Your task to perform on an android device: Search for "logitech g502" on newegg.com, select the first entry, and add it to the cart. Image 0: 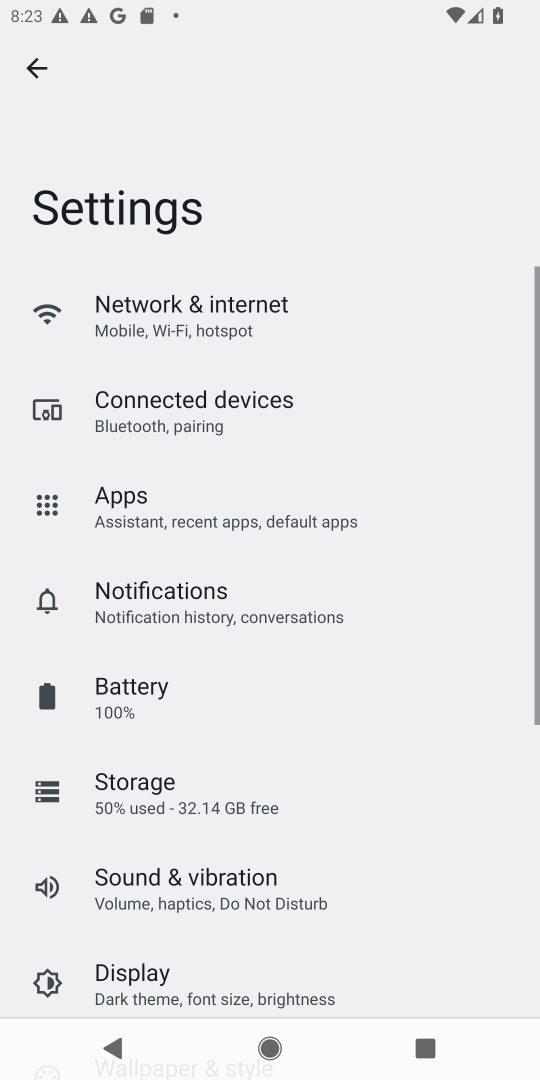
Step 0: press home button
Your task to perform on an android device: Search for "logitech g502" on newegg.com, select the first entry, and add it to the cart. Image 1: 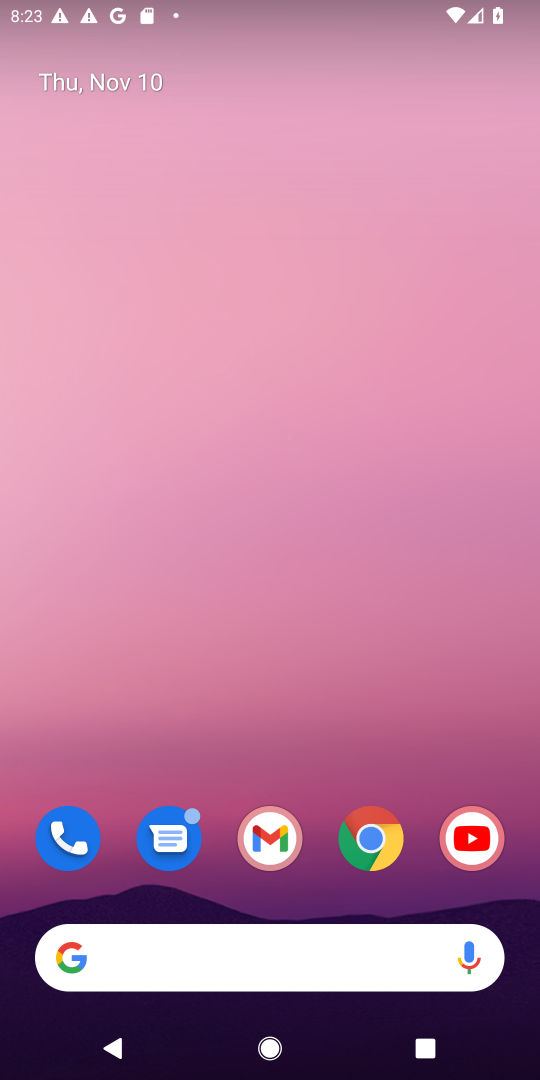
Step 1: drag from (325, 918) to (170, 15)
Your task to perform on an android device: Search for "logitech g502" on newegg.com, select the first entry, and add it to the cart. Image 2: 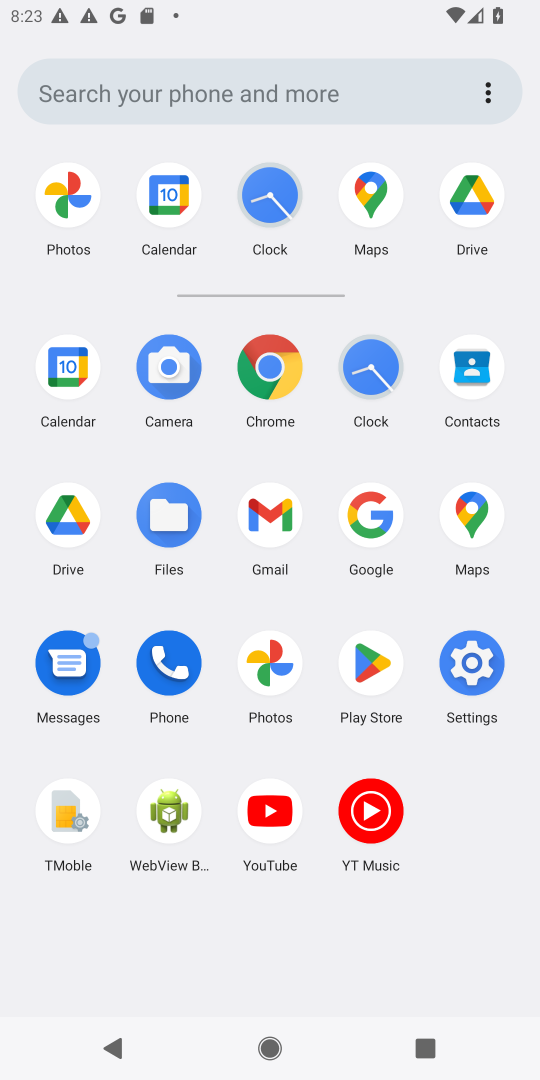
Step 2: click (269, 382)
Your task to perform on an android device: Search for "logitech g502" on newegg.com, select the first entry, and add it to the cart. Image 3: 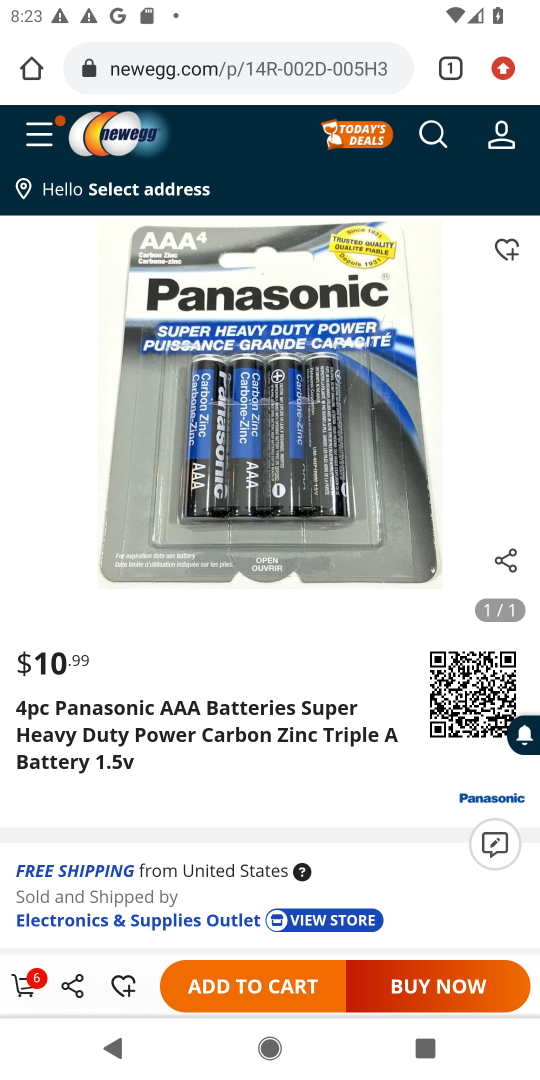
Step 3: click (322, 58)
Your task to perform on an android device: Search for "logitech g502" on newegg.com, select the first entry, and add it to the cart. Image 4: 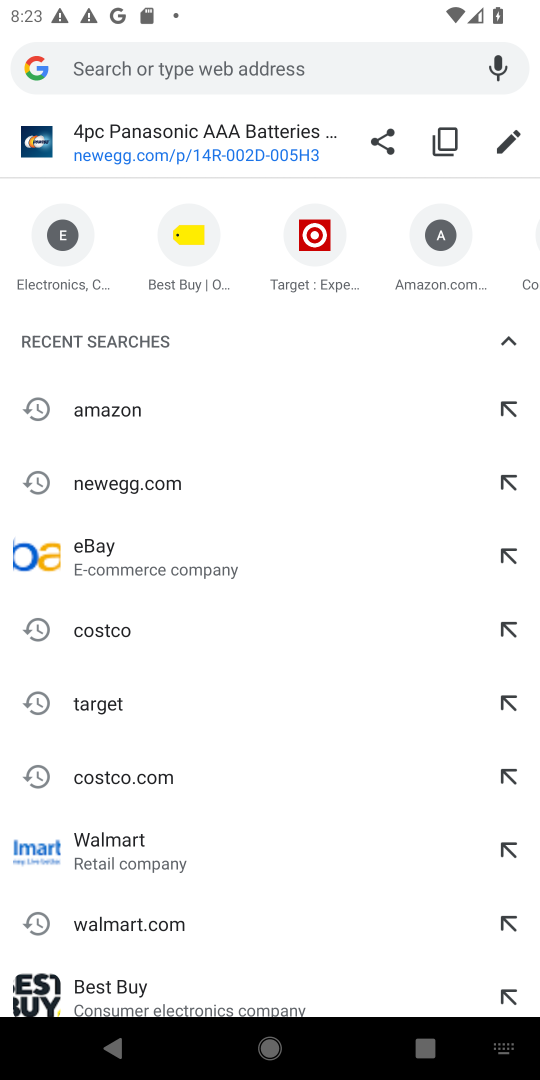
Step 4: type "newegg.com"
Your task to perform on an android device: Search for "logitech g502" on newegg.com, select the first entry, and add it to the cart. Image 5: 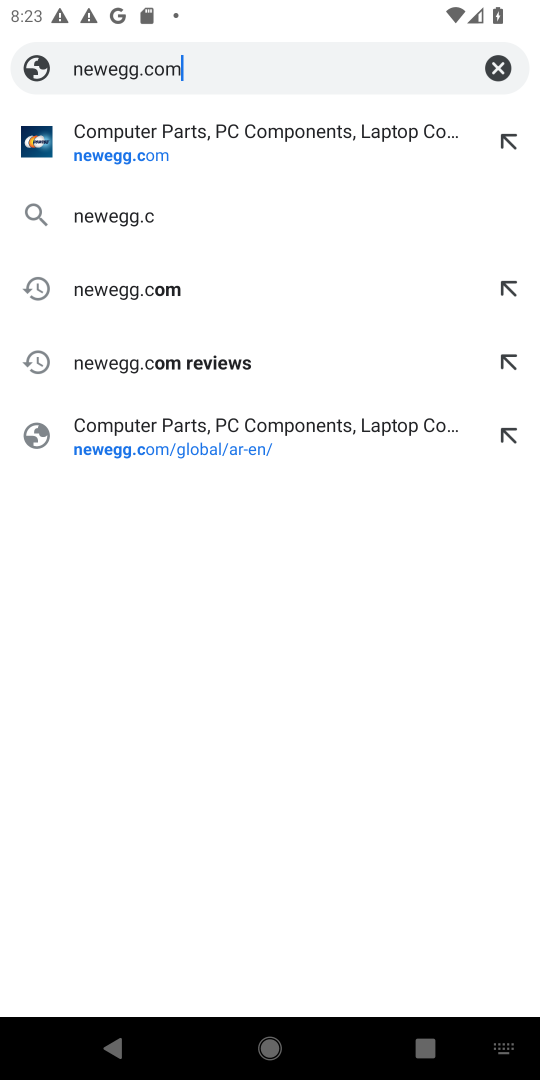
Step 5: press enter
Your task to perform on an android device: Search for "logitech g502" on newegg.com, select the first entry, and add it to the cart. Image 6: 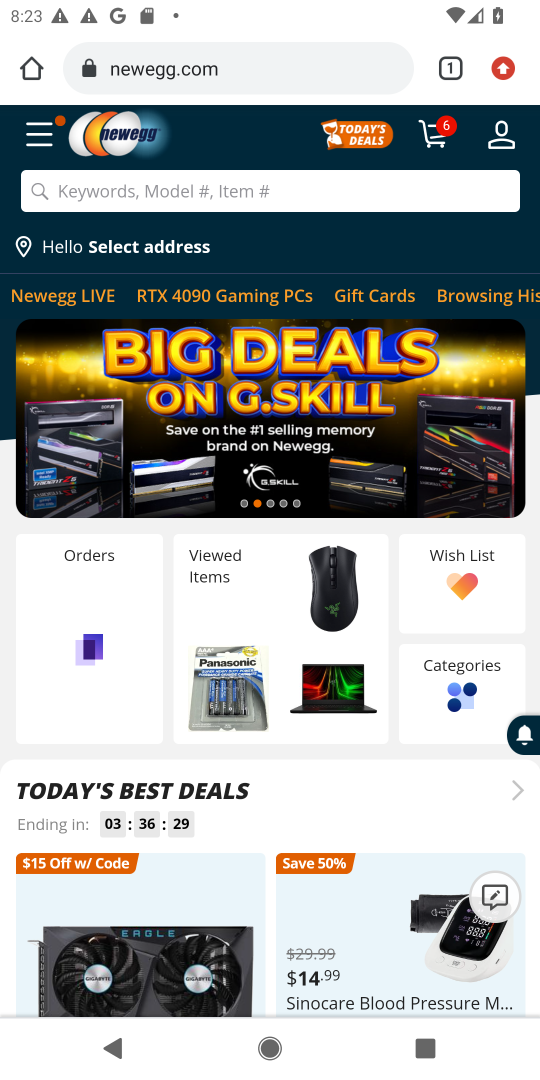
Step 6: click (306, 184)
Your task to perform on an android device: Search for "logitech g502" on newegg.com, select the first entry, and add it to the cart. Image 7: 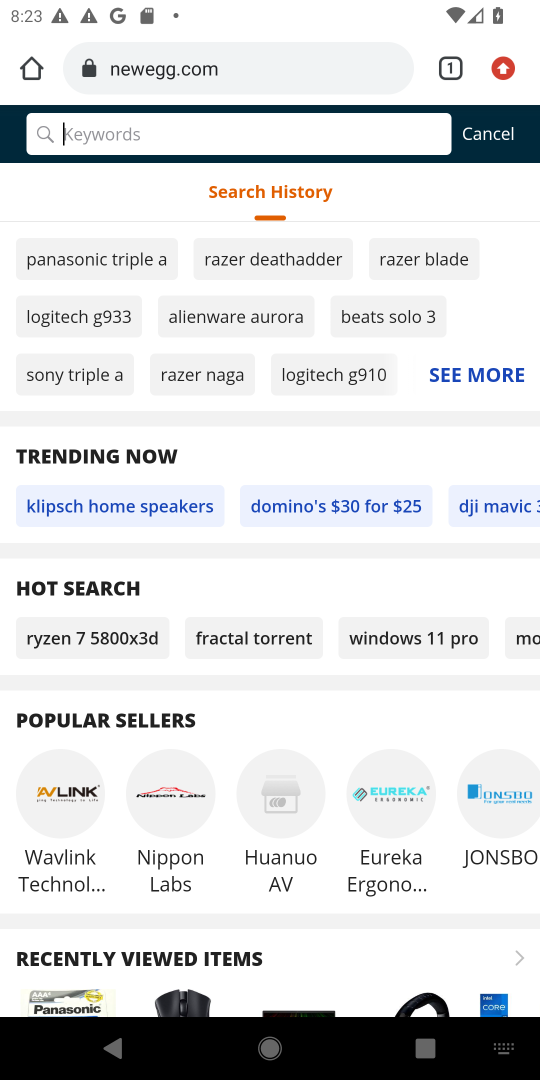
Step 7: type "logitech g502"
Your task to perform on an android device: Search for "logitech g502" on newegg.com, select the first entry, and add it to the cart. Image 8: 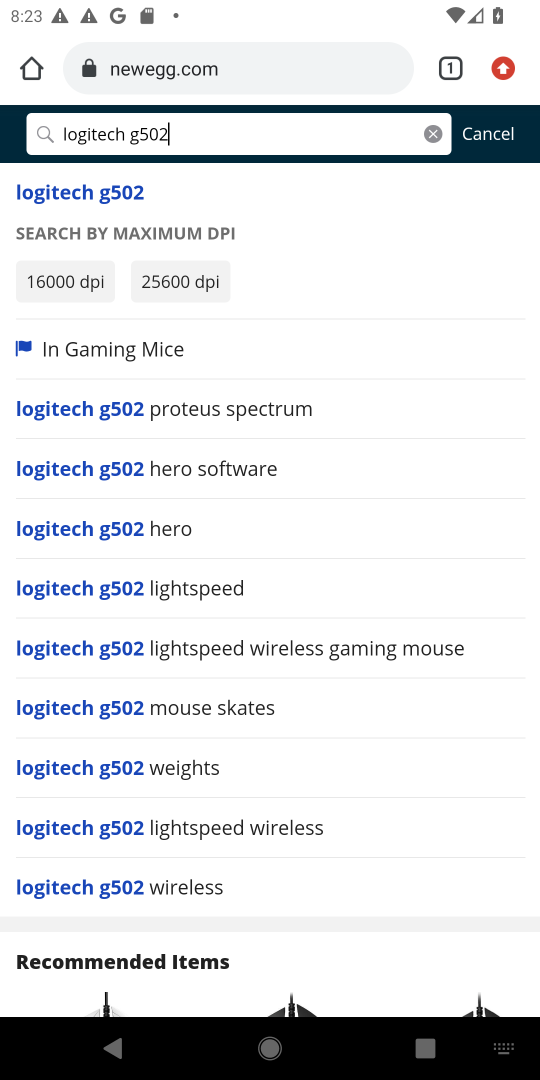
Step 8: press enter
Your task to perform on an android device: Search for "logitech g502" on newegg.com, select the first entry, and add it to the cart. Image 9: 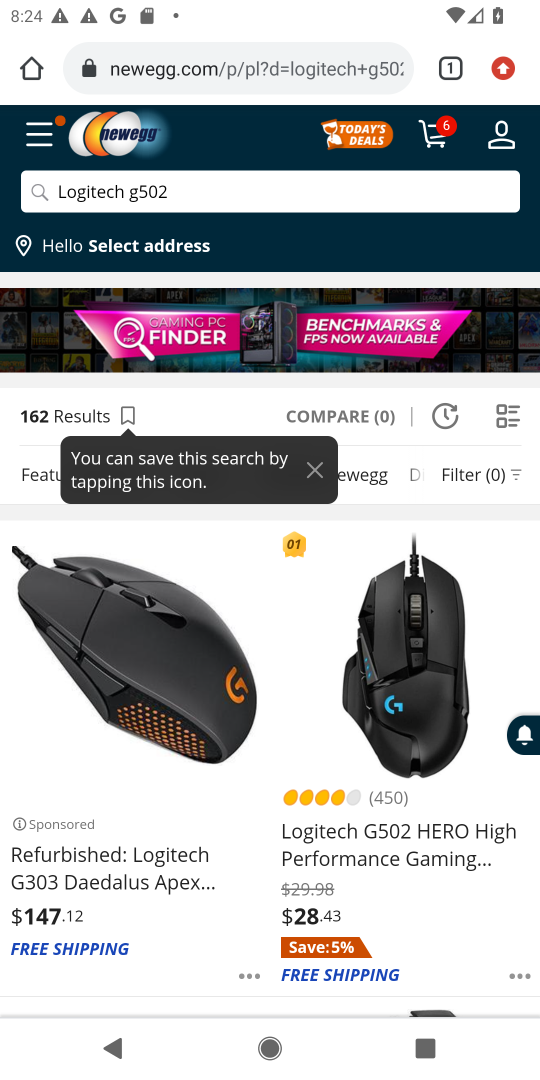
Step 9: drag from (297, 881) to (315, 519)
Your task to perform on an android device: Search for "logitech g502" on newegg.com, select the first entry, and add it to the cart. Image 10: 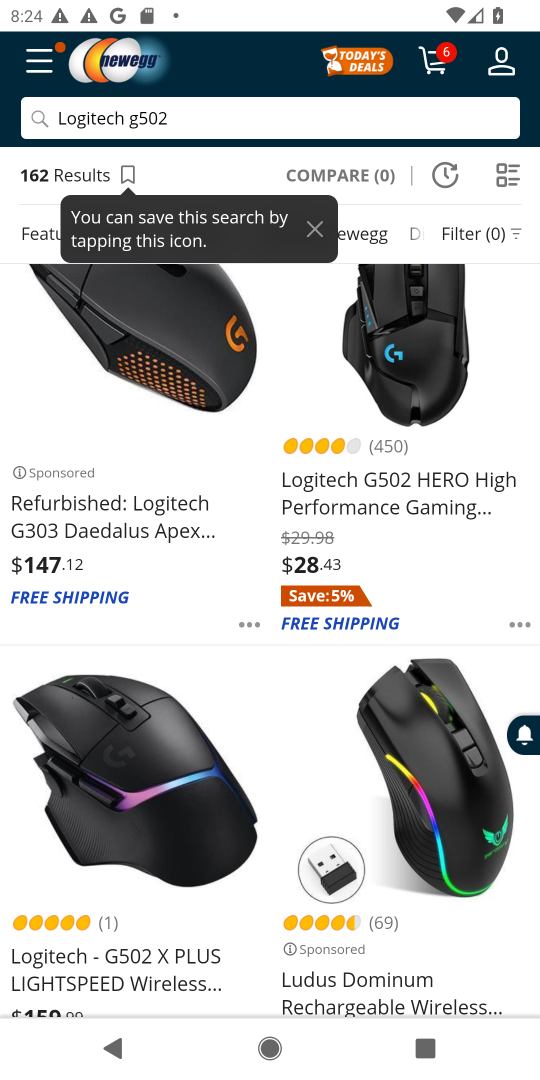
Step 10: click (404, 511)
Your task to perform on an android device: Search for "logitech g502" on newegg.com, select the first entry, and add it to the cart. Image 11: 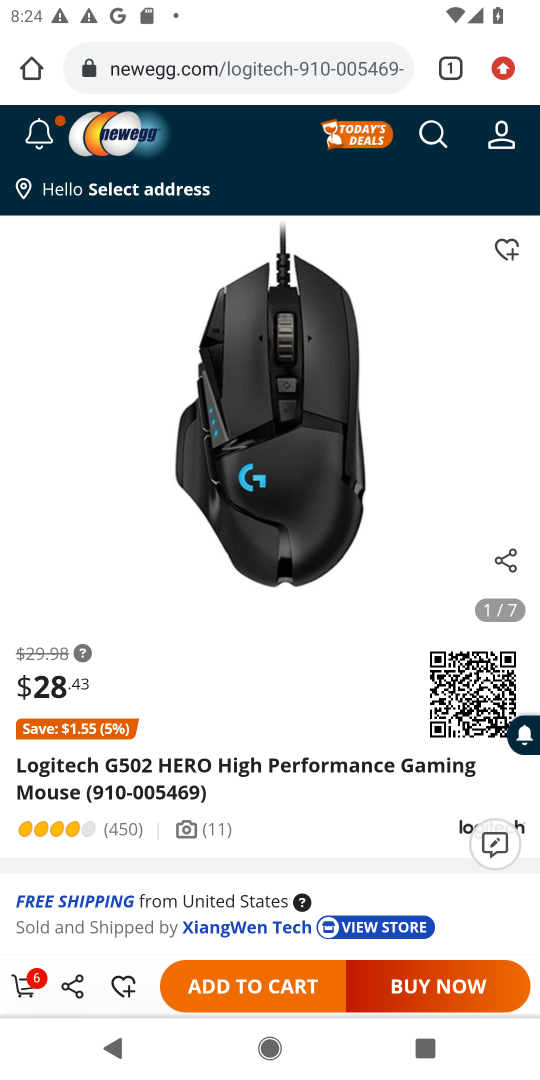
Step 11: click (249, 994)
Your task to perform on an android device: Search for "logitech g502" on newegg.com, select the first entry, and add it to the cart. Image 12: 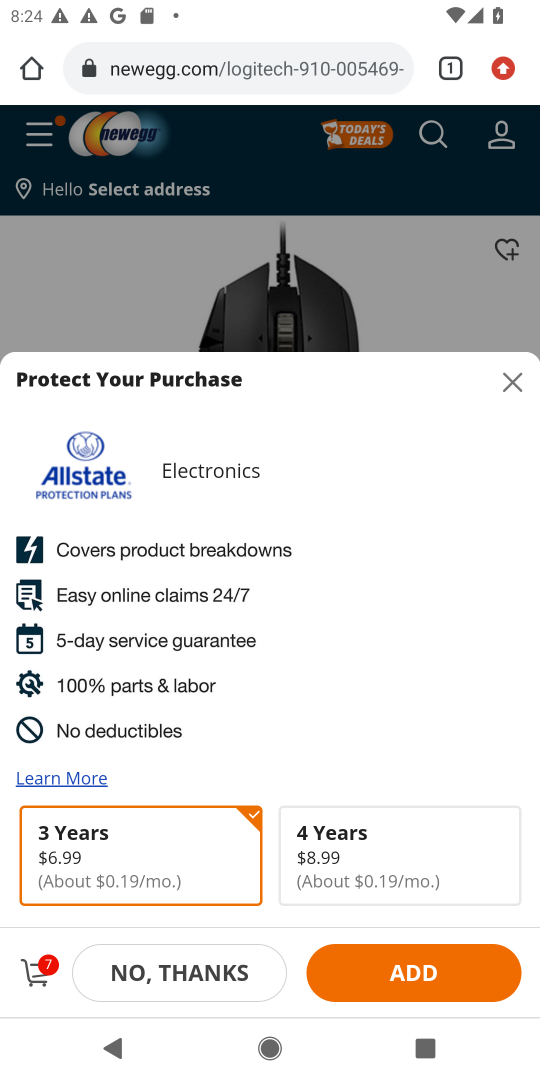
Step 12: task complete